Your task to perform on an android device: see sites visited before in the chrome app Image 0: 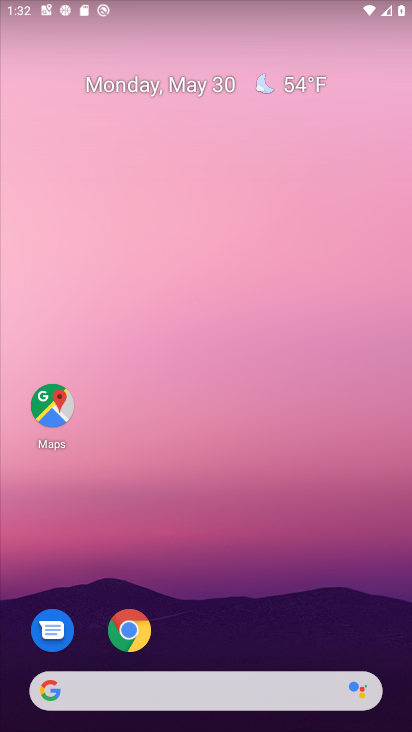
Step 0: press home button
Your task to perform on an android device: see sites visited before in the chrome app Image 1: 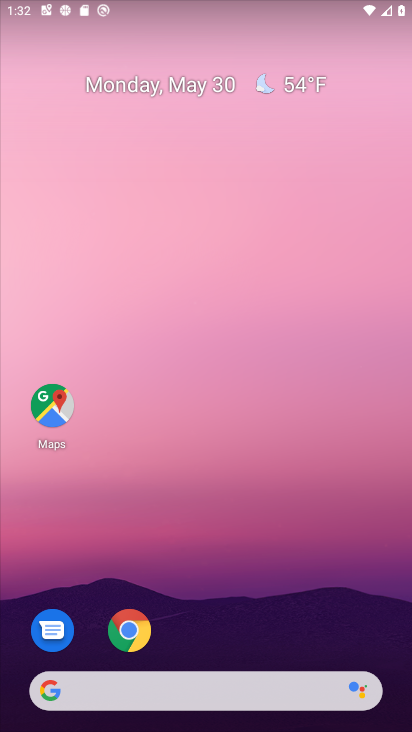
Step 1: click (130, 633)
Your task to perform on an android device: see sites visited before in the chrome app Image 2: 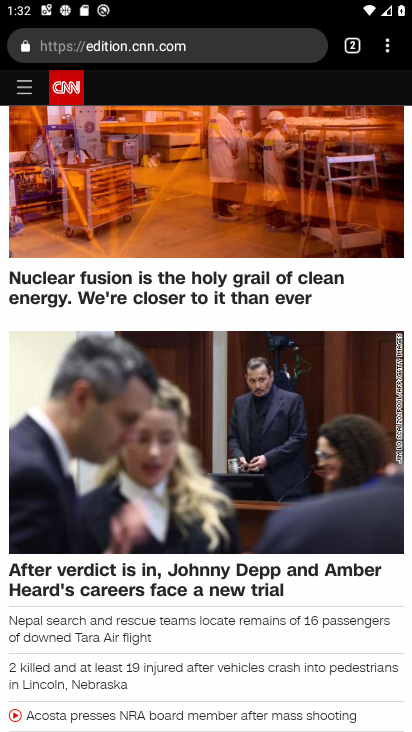
Step 2: task complete